Your task to perform on an android device: Show me recent news Image 0: 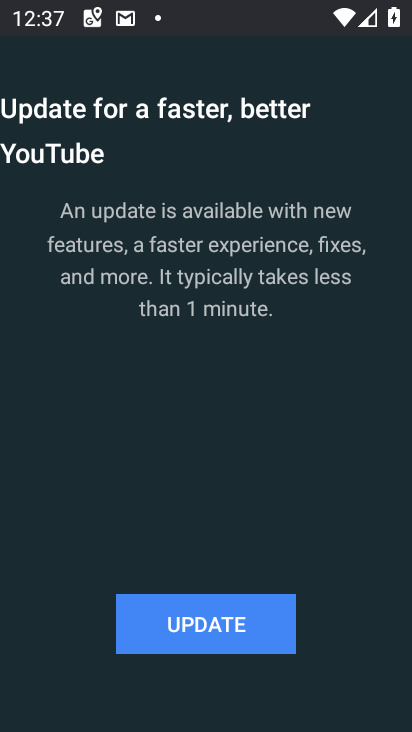
Step 0: press home button
Your task to perform on an android device: Show me recent news Image 1: 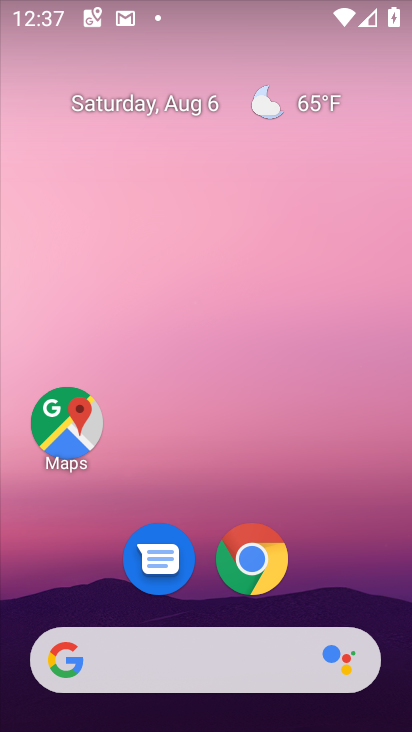
Step 1: click (240, 662)
Your task to perform on an android device: Show me recent news Image 2: 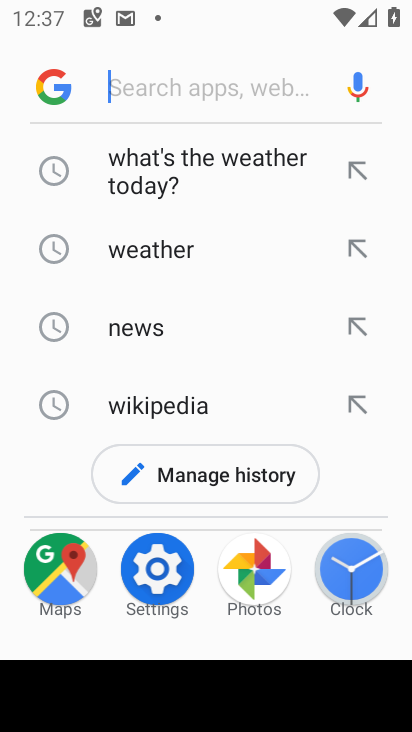
Step 2: type "recent news"
Your task to perform on an android device: Show me recent news Image 3: 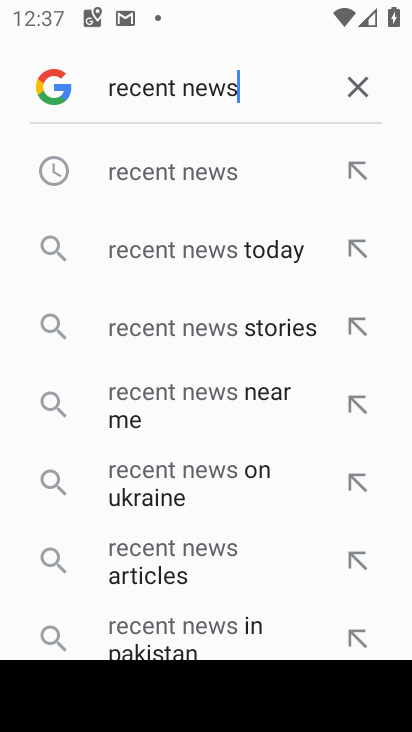
Step 3: click (213, 160)
Your task to perform on an android device: Show me recent news Image 4: 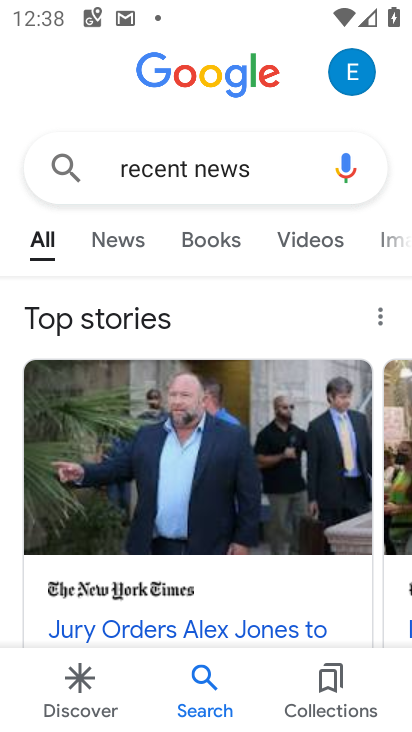
Step 4: task complete